Your task to perform on an android device: Open Chrome and go to settings Image 0: 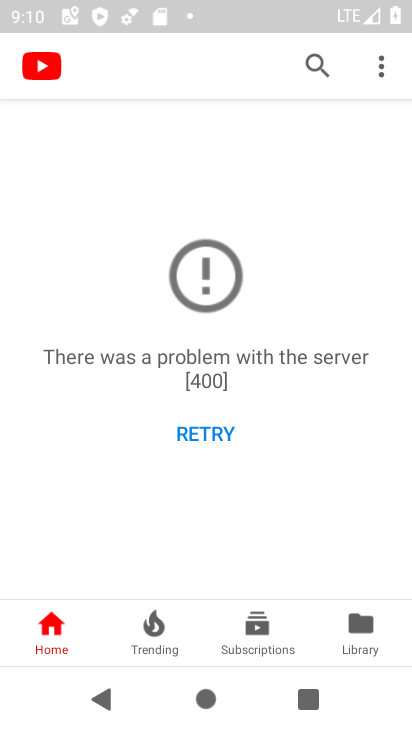
Step 0: press home button
Your task to perform on an android device: Open Chrome and go to settings Image 1: 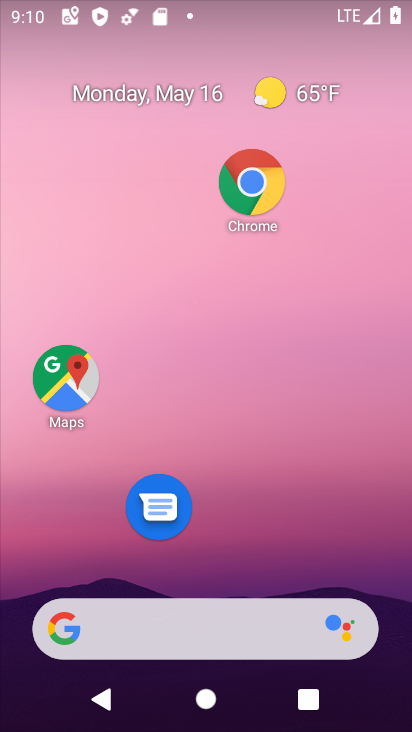
Step 1: drag from (201, 561) to (283, 14)
Your task to perform on an android device: Open Chrome and go to settings Image 2: 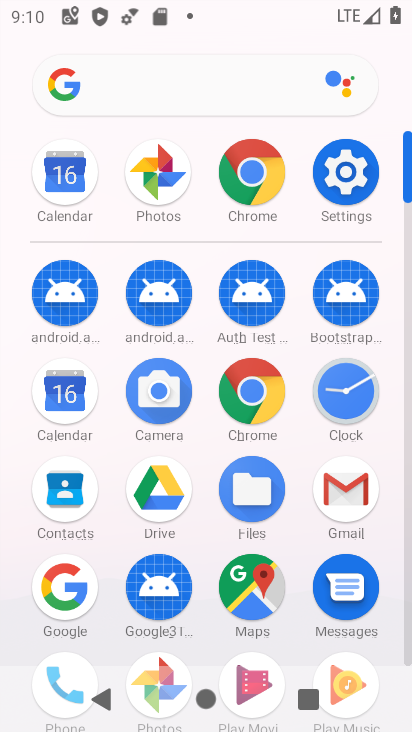
Step 2: click (233, 384)
Your task to perform on an android device: Open Chrome and go to settings Image 3: 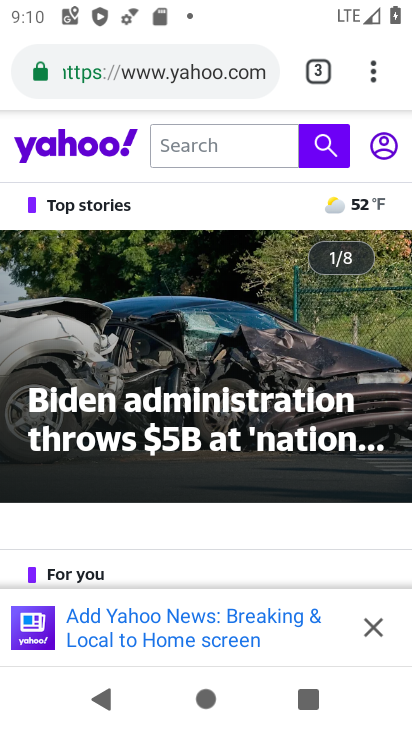
Step 3: click (367, 83)
Your task to perform on an android device: Open Chrome and go to settings Image 4: 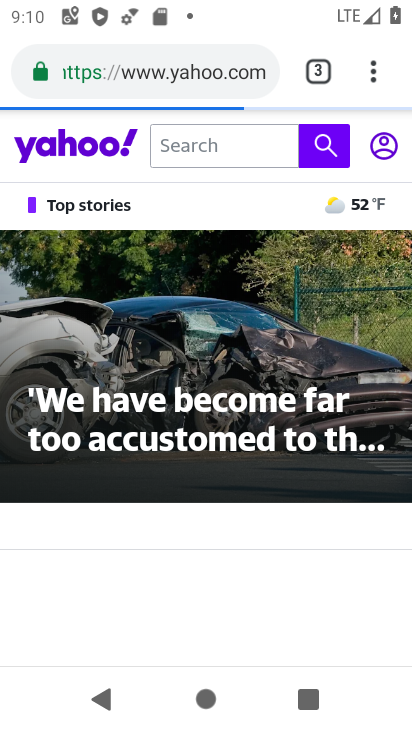
Step 4: task complete